Your task to perform on an android device: Add "dell xps" to the cart on costco.com, then select checkout. Image 0: 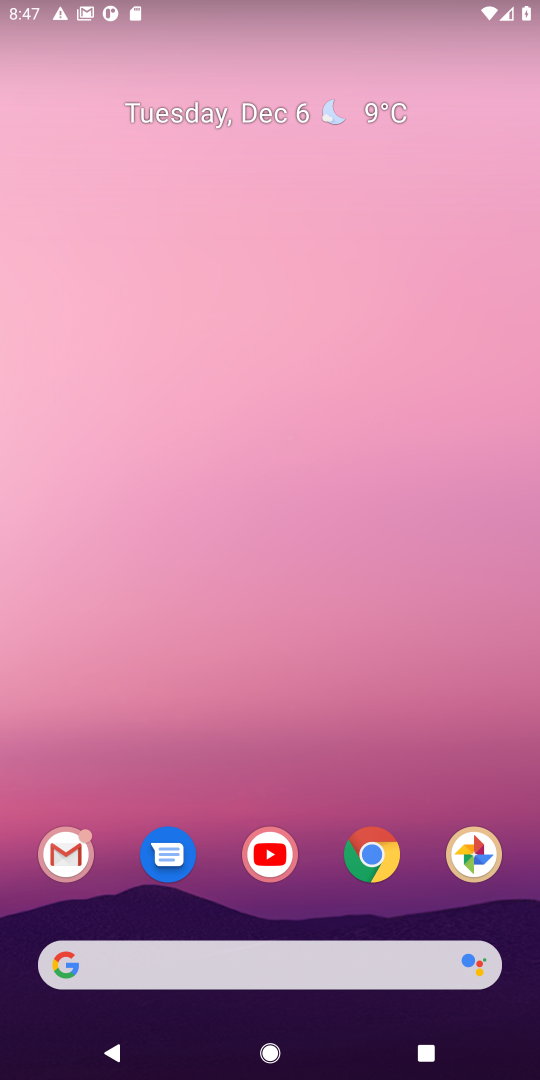
Step 0: click (388, 862)
Your task to perform on an android device: Add "dell xps" to the cart on costco.com, then select checkout. Image 1: 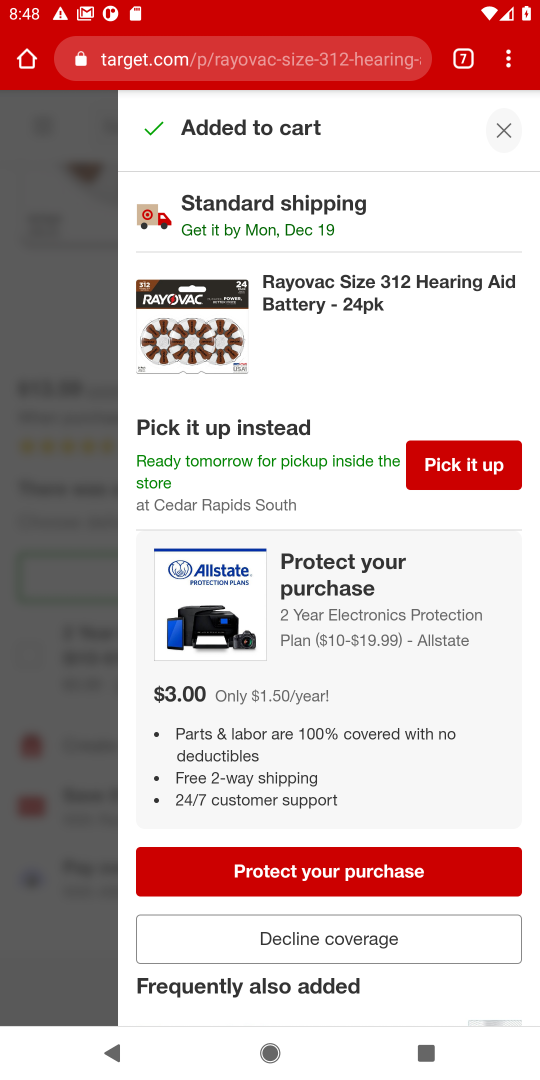
Step 1: click (467, 58)
Your task to perform on an android device: Add "dell xps" to the cart on costco.com, then select checkout. Image 2: 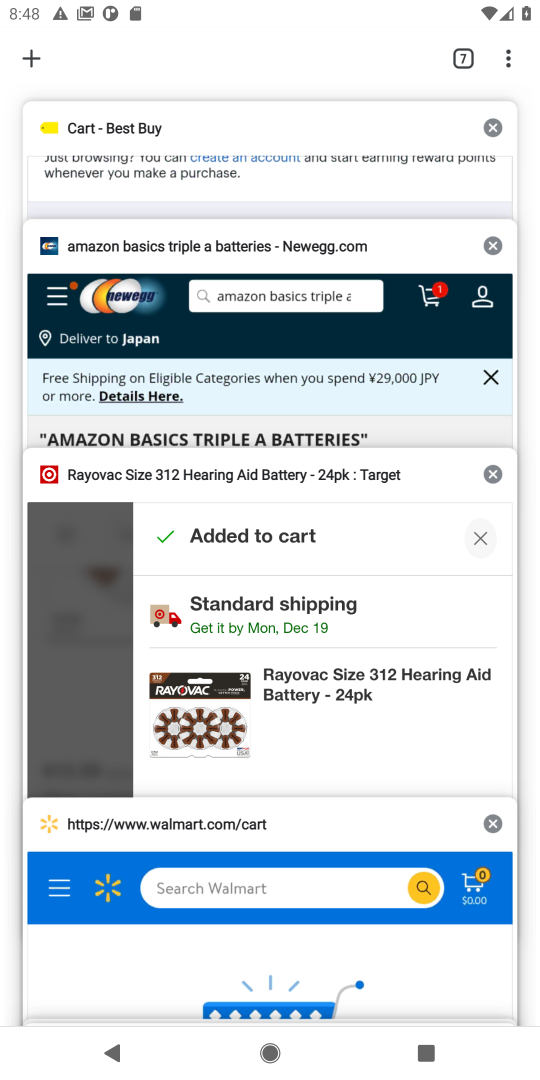
Step 2: drag from (269, 871) to (419, 173)
Your task to perform on an android device: Add "dell xps" to the cart on costco.com, then select checkout. Image 3: 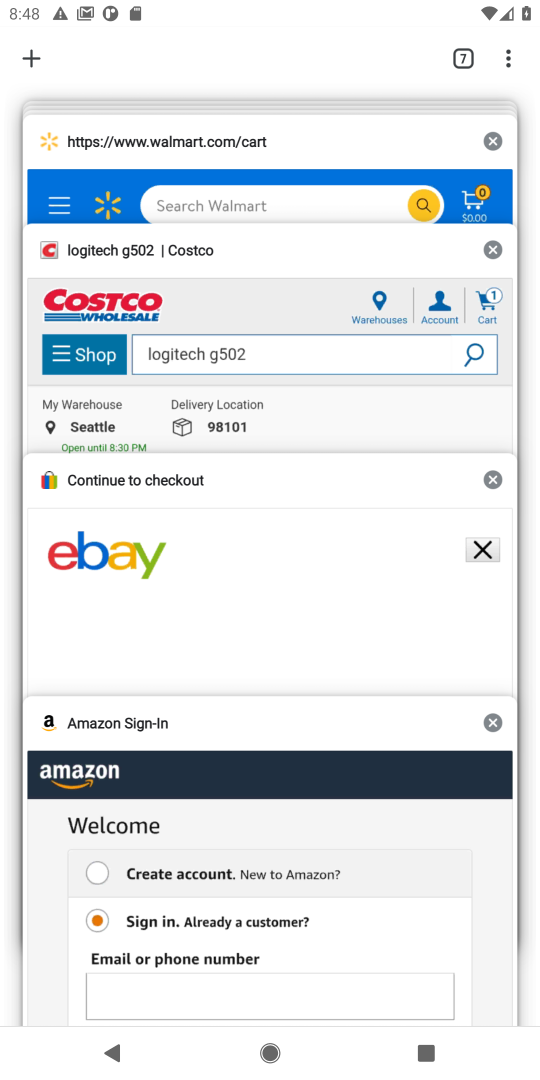
Step 3: click (369, 397)
Your task to perform on an android device: Add "dell xps" to the cart on costco.com, then select checkout. Image 4: 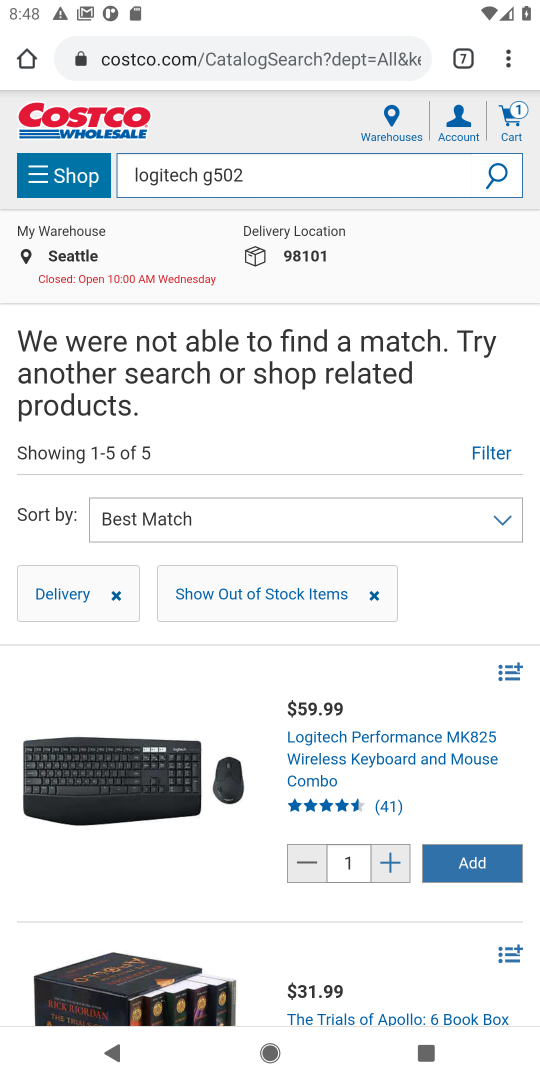
Step 4: click (390, 185)
Your task to perform on an android device: Add "dell xps" to the cart on costco.com, then select checkout. Image 5: 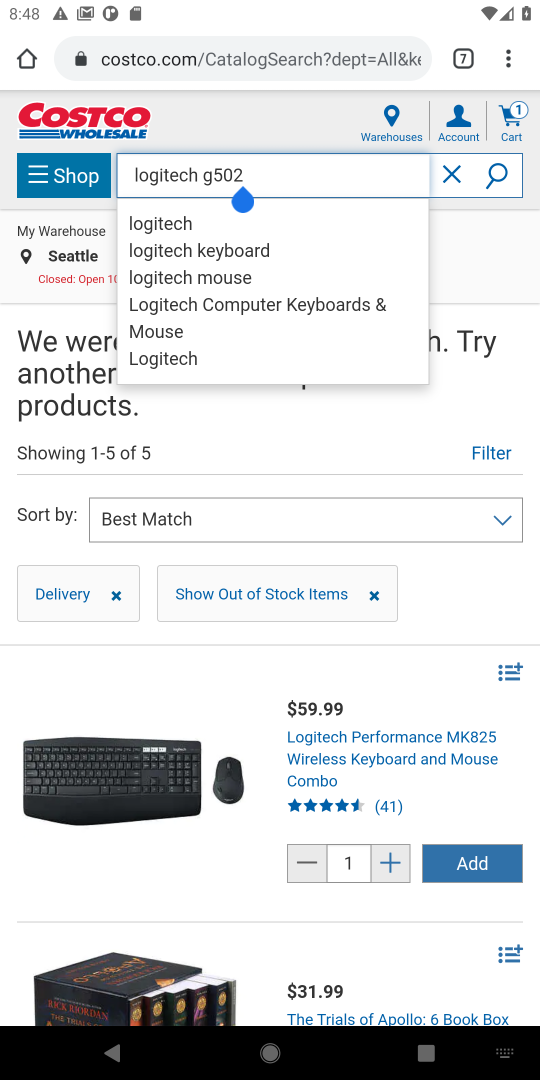
Step 5: click (454, 177)
Your task to perform on an android device: Add "dell xps" to the cart on costco.com, then select checkout. Image 6: 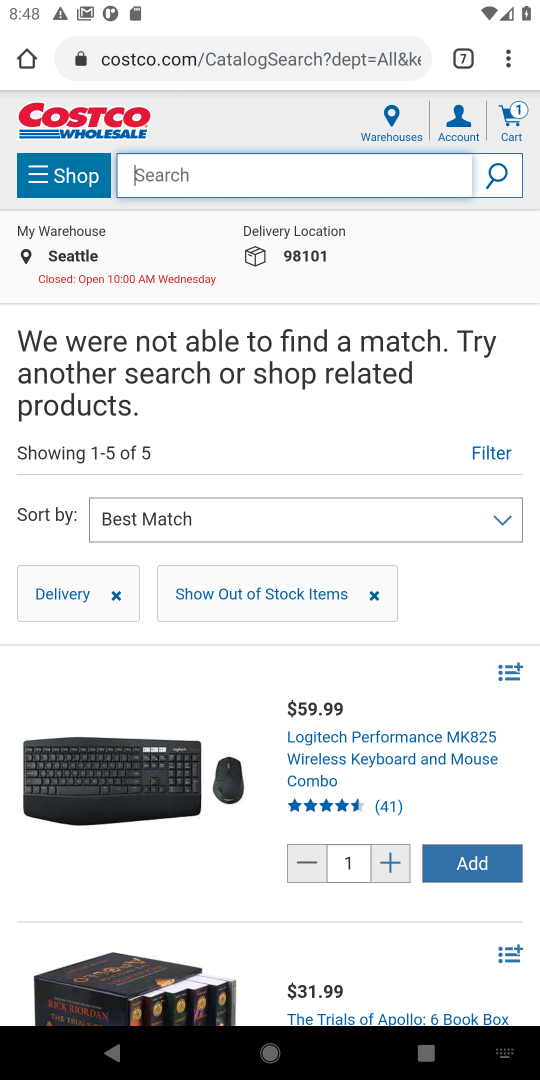
Step 6: type "dell xps"
Your task to perform on an android device: Add "dell xps" to the cart on costco.com, then select checkout. Image 7: 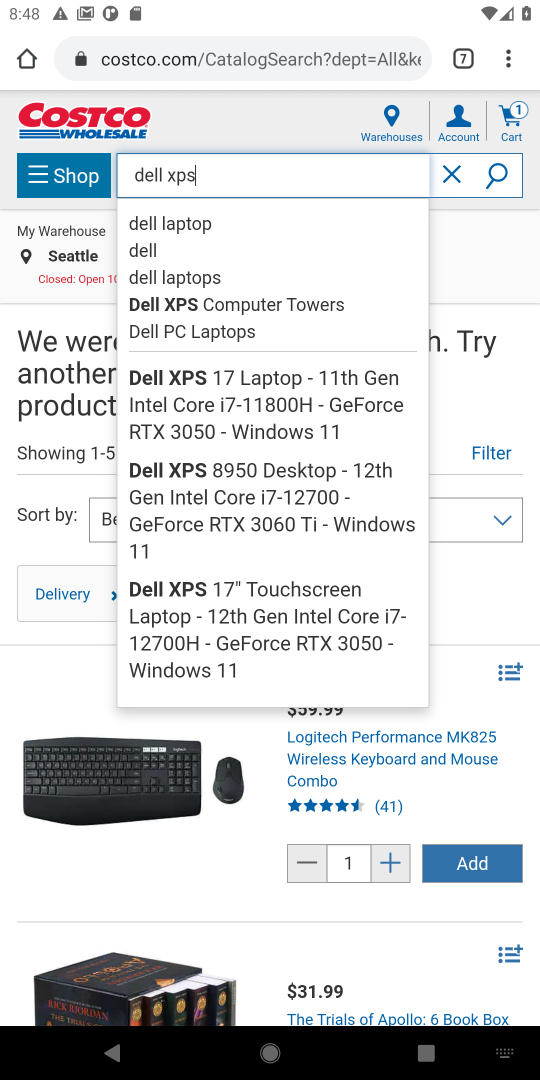
Step 7: click (208, 310)
Your task to perform on an android device: Add "dell xps" to the cart on costco.com, then select checkout. Image 8: 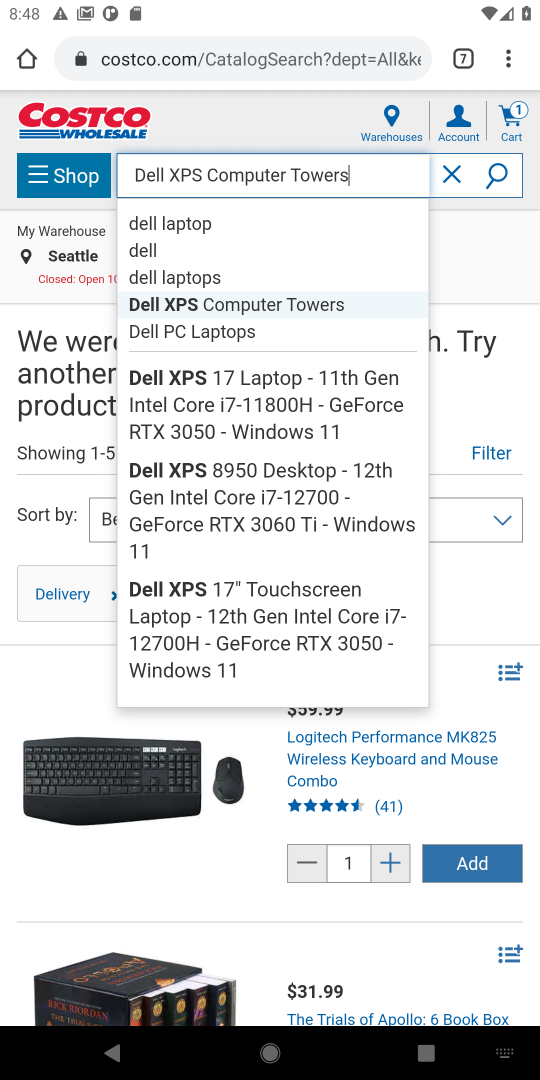
Step 8: click (497, 171)
Your task to perform on an android device: Add "dell xps" to the cart on costco.com, then select checkout. Image 9: 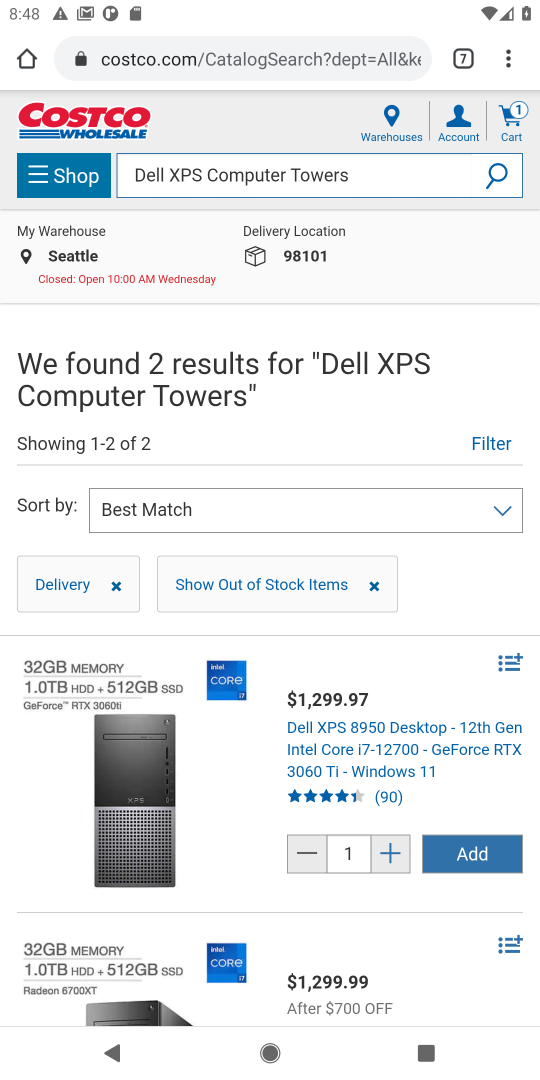
Step 9: click (473, 846)
Your task to perform on an android device: Add "dell xps" to the cart on costco.com, then select checkout. Image 10: 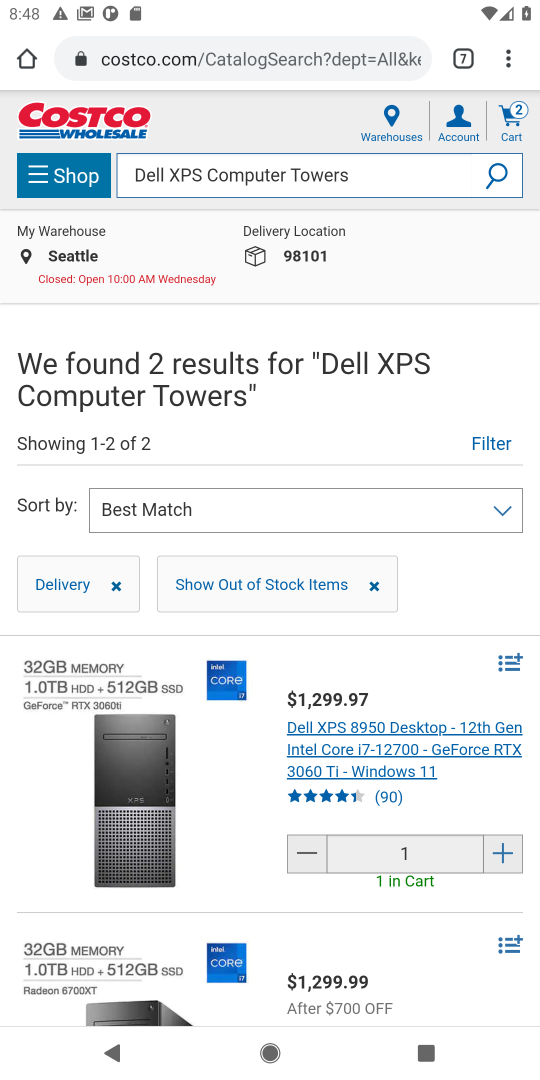
Step 10: task complete